Your task to perform on an android device: Open Android settings Image 0: 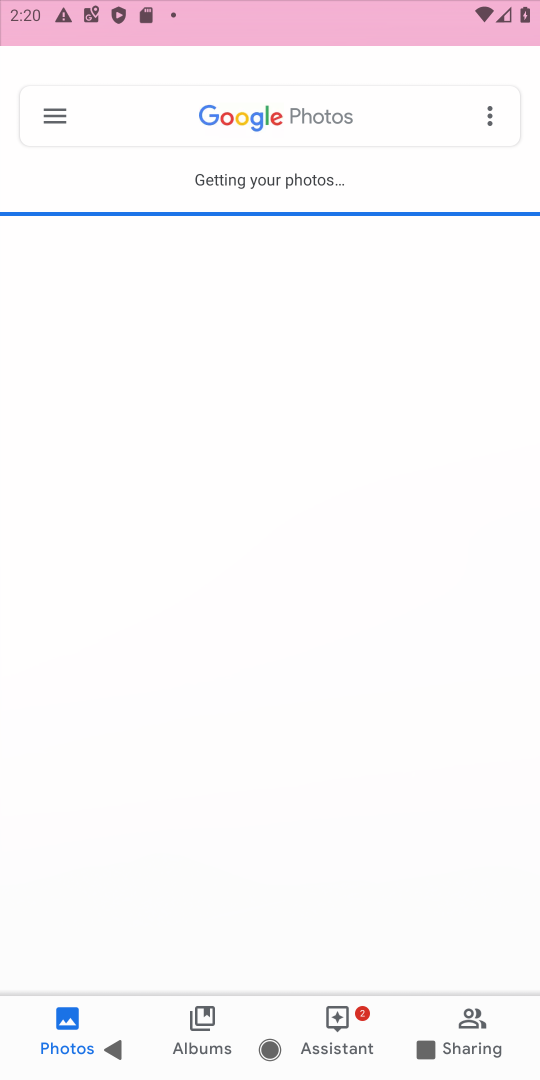
Step 0: press back button
Your task to perform on an android device: Open Android settings Image 1: 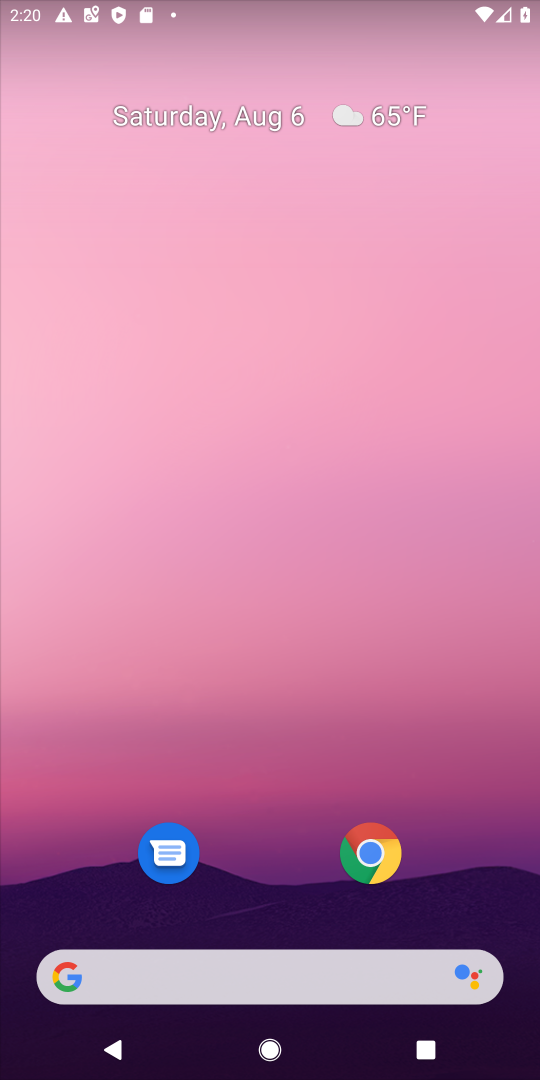
Step 1: drag from (243, 743) to (259, 156)
Your task to perform on an android device: Open Android settings Image 2: 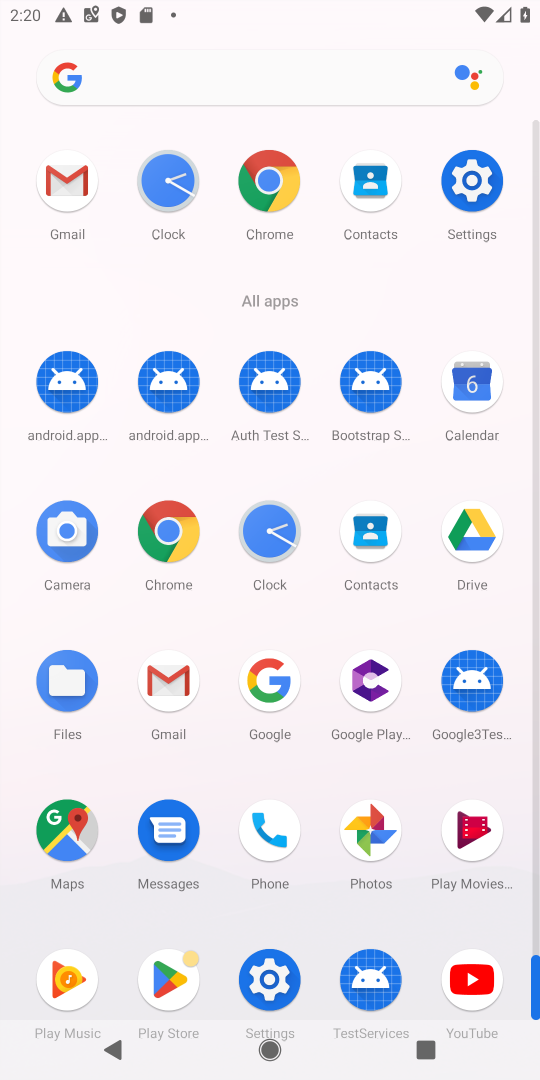
Step 2: click (483, 211)
Your task to perform on an android device: Open Android settings Image 3: 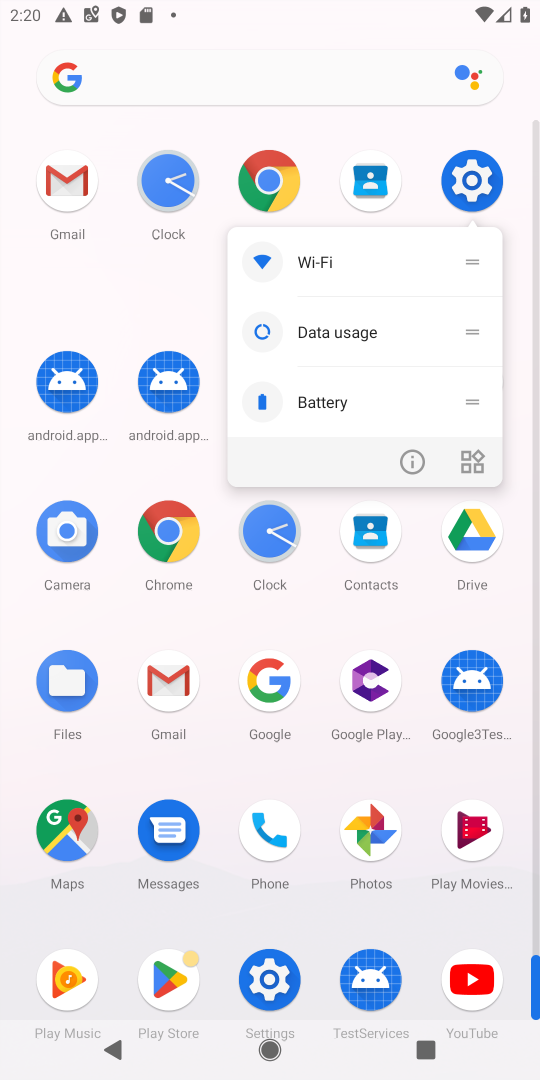
Step 3: click (464, 187)
Your task to perform on an android device: Open Android settings Image 4: 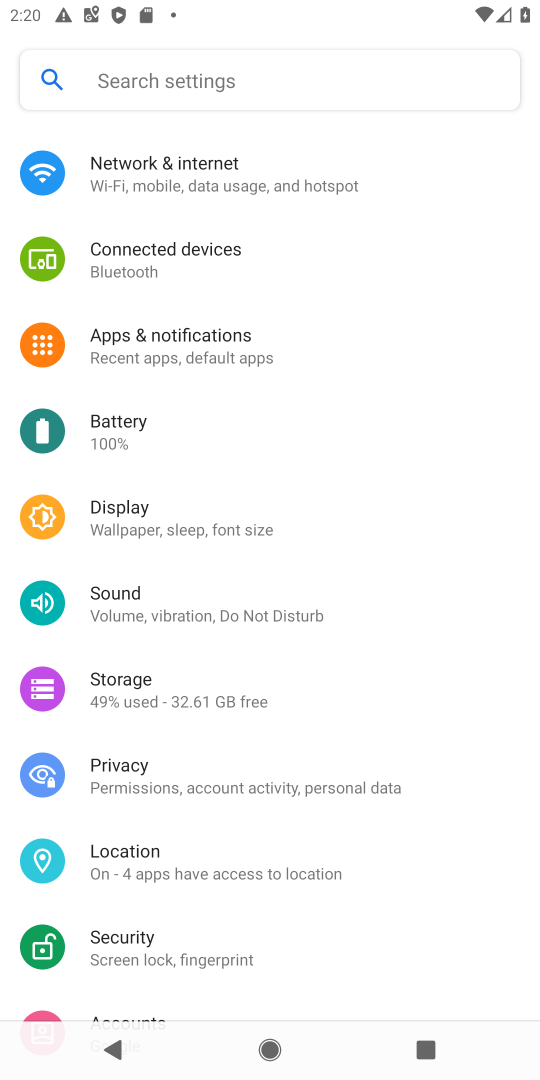
Step 4: drag from (250, 927) to (341, 19)
Your task to perform on an android device: Open Android settings Image 5: 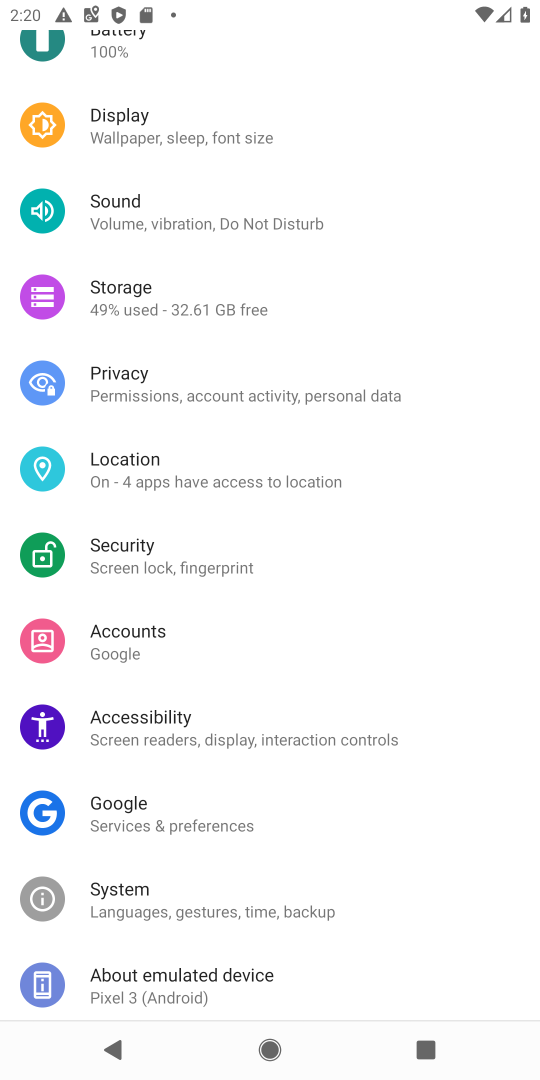
Step 5: drag from (201, 961) to (264, 484)
Your task to perform on an android device: Open Android settings Image 6: 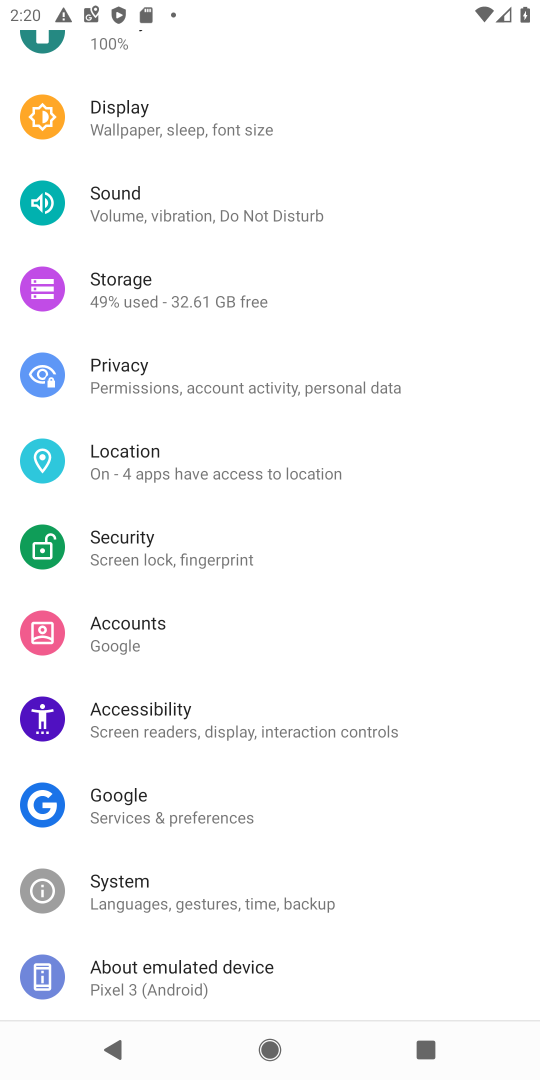
Step 6: click (166, 1007)
Your task to perform on an android device: Open Android settings Image 7: 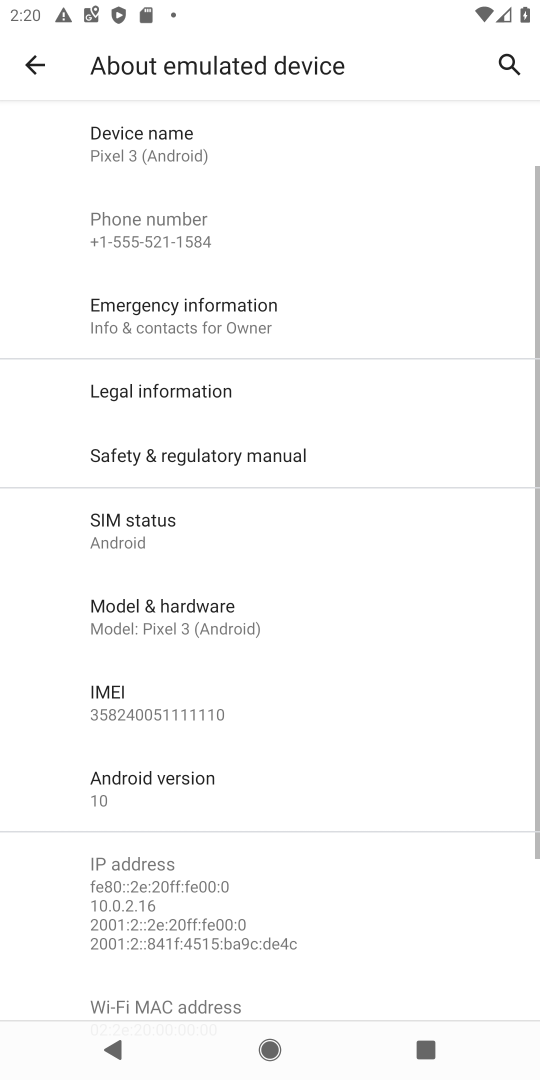
Step 7: click (153, 793)
Your task to perform on an android device: Open Android settings Image 8: 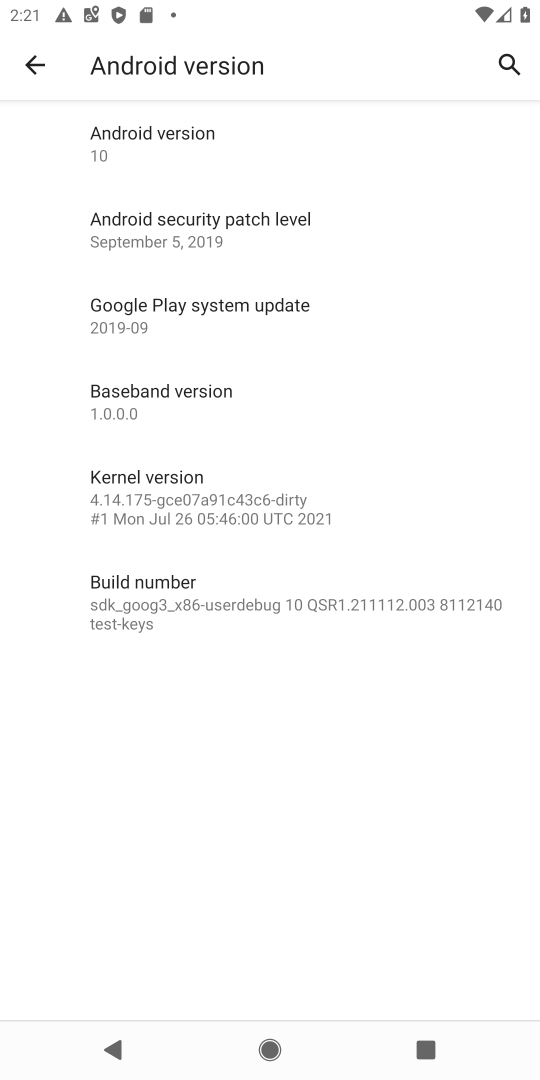
Step 8: task complete